Your task to perform on an android device: change timer sound Image 0: 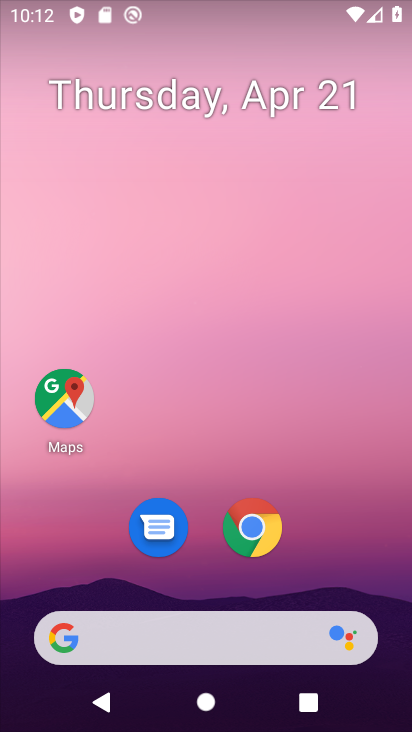
Step 0: drag from (329, 559) to (320, 163)
Your task to perform on an android device: change timer sound Image 1: 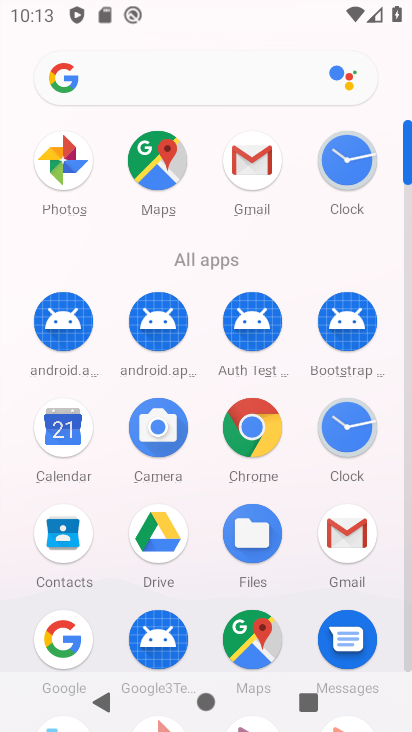
Step 1: click (342, 174)
Your task to perform on an android device: change timer sound Image 2: 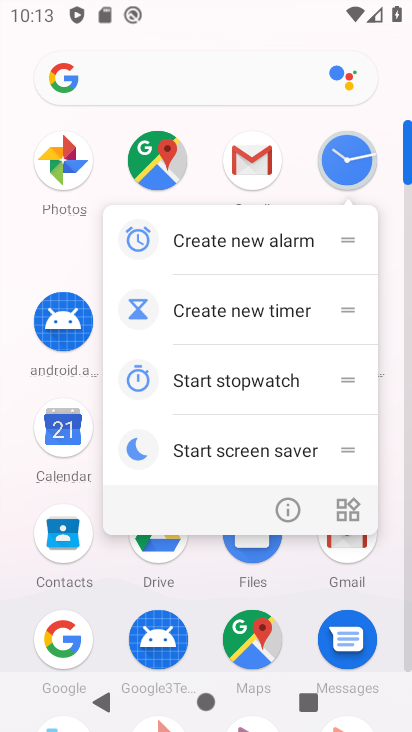
Step 2: click (351, 191)
Your task to perform on an android device: change timer sound Image 3: 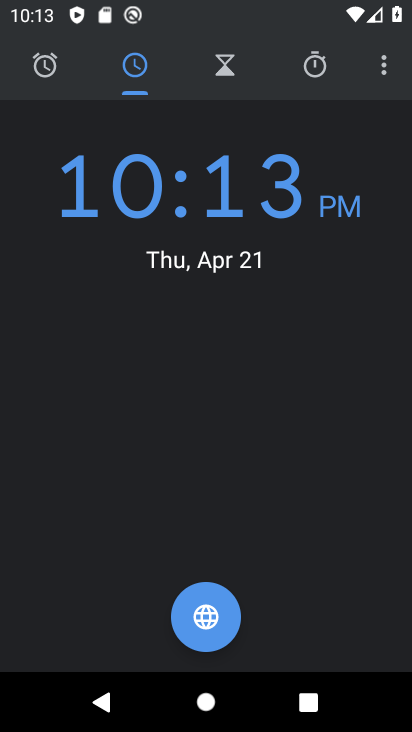
Step 3: drag from (377, 73) to (359, 105)
Your task to perform on an android device: change timer sound Image 4: 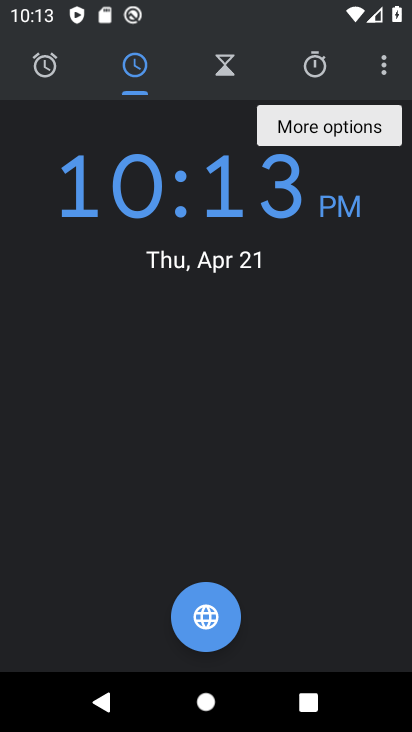
Step 4: click (378, 80)
Your task to perform on an android device: change timer sound Image 5: 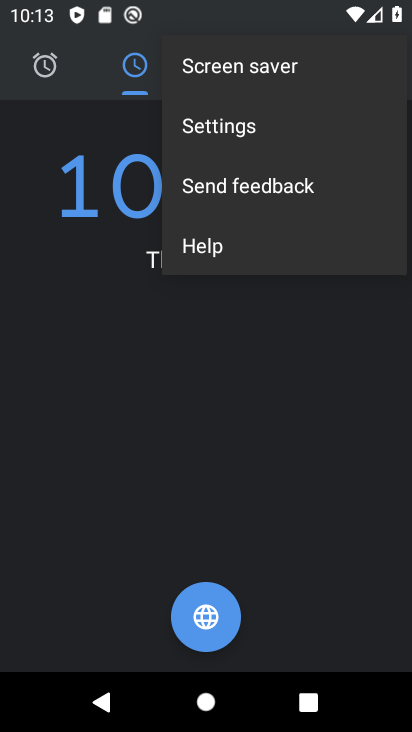
Step 5: click (274, 123)
Your task to perform on an android device: change timer sound Image 6: 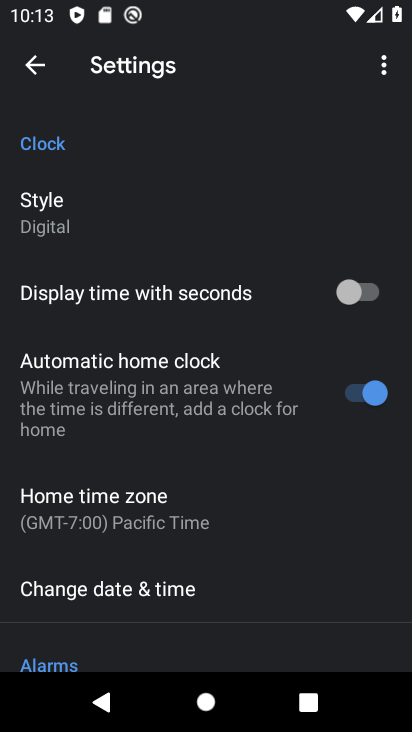
Step 6: drag from (247, 616) to (272, 149)
Your task to perform on an android device: change timer sound Image 7: 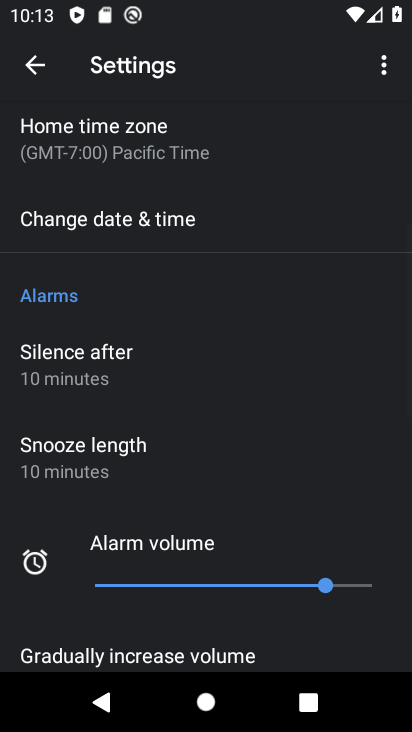
Step 7: drag from (199, 631) to (231, 193)
Your task to perform on an android device: change timer sound Image 8: 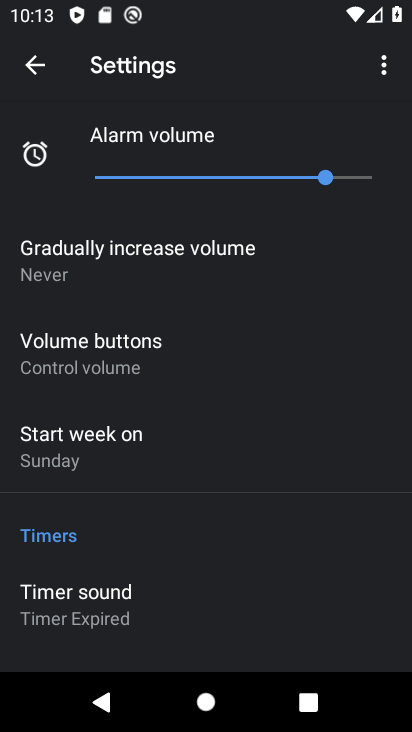
Step 8: click (150, 607)
Your task to perform on an android device: change timer sound Image 9: 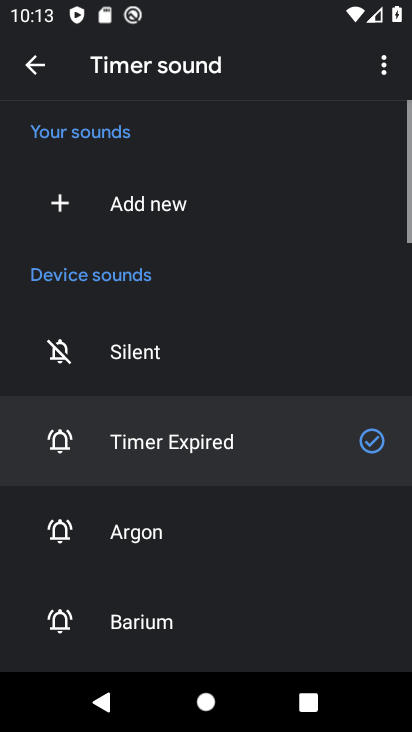
Step 9: click (166, 526)
Your task to perform on an android device: change timer sound Image 10: 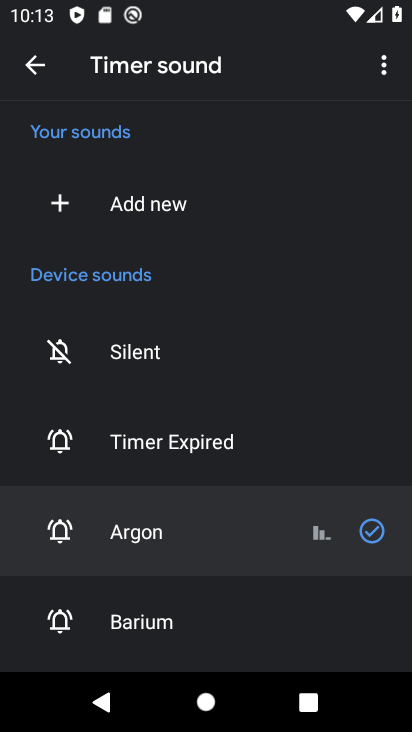
Step 10: task complete